Your task to perform on an android device: Go to accessibility settings Image 0: 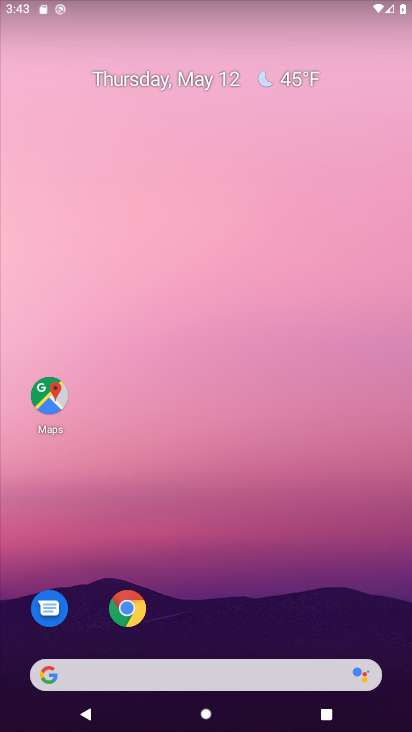
Step 0: drag from (217, 619) to (249, 102)
Your task to perform on an android device: Go to accessibility settings Image 1: 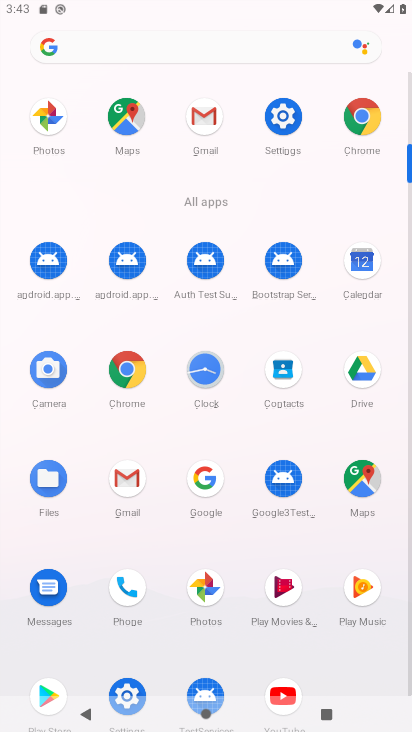
Step 1: click (281, 115)
Your task to perform on an android device: Go to accessibility settings Image 2: 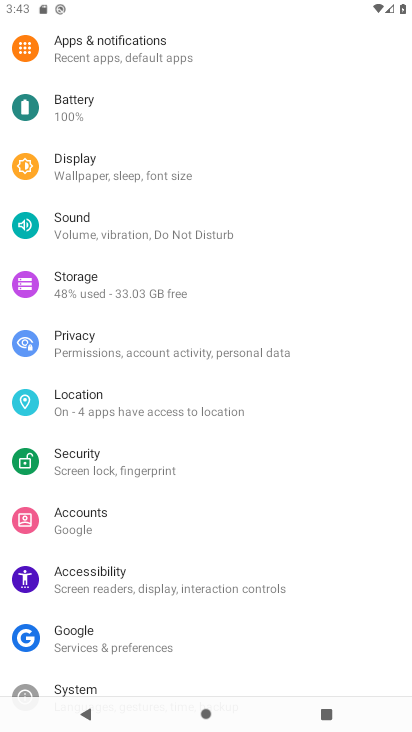
Step 2: click (246, 579)
Your task to perform on an android device: Go to accessibility settings Image 3: 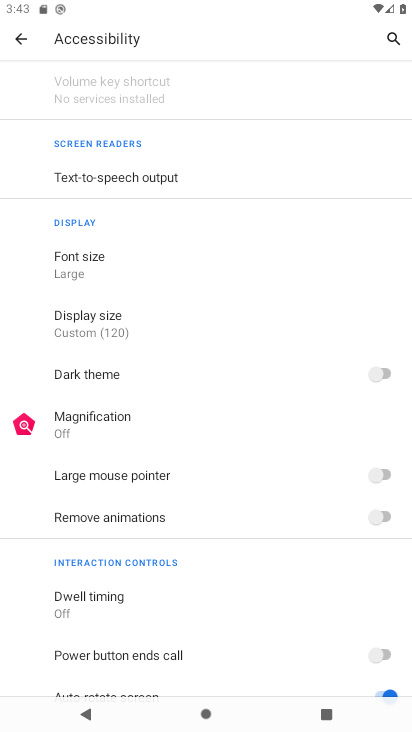
Step 3: click (130, 268)
Your task to perform on an android device: Go to accessibility settings Image 4: 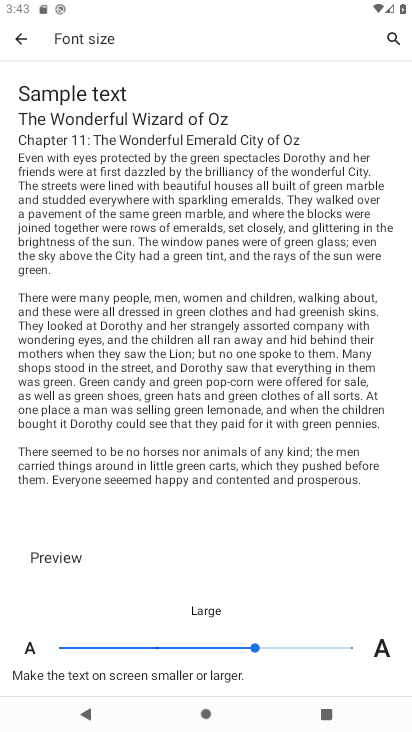
Step 4: click (18, 28)
Your task to perform on an android device: Go to accessibility settings Image 5: 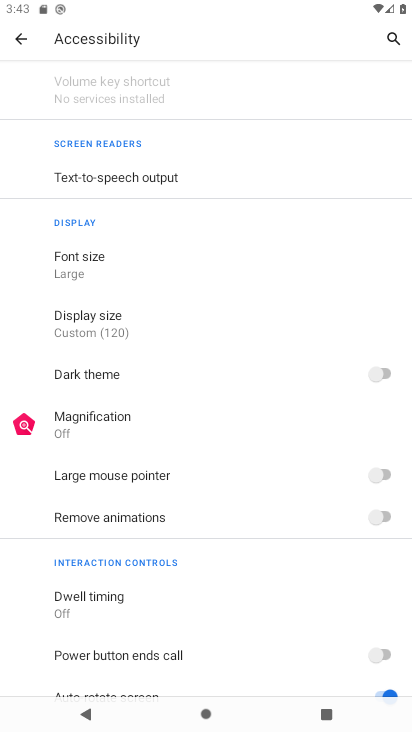
Step 5: click (95, 326)
Your task to perform on an android device: Go to accessibility settings Image 6: 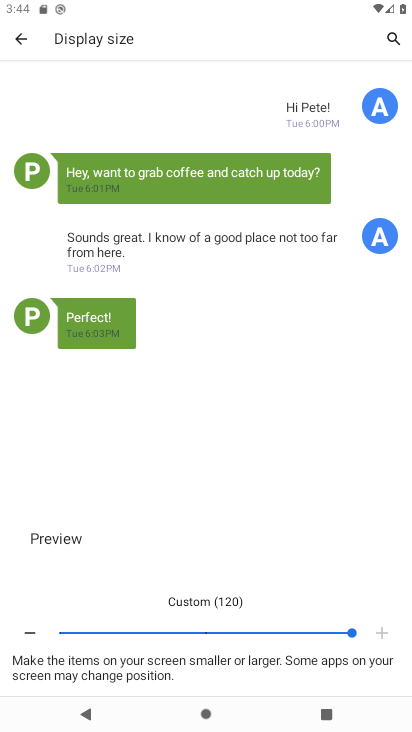
Step 6: click (378, 632)
Your task to perform on an android device: Go to accessibility settings Image 7: 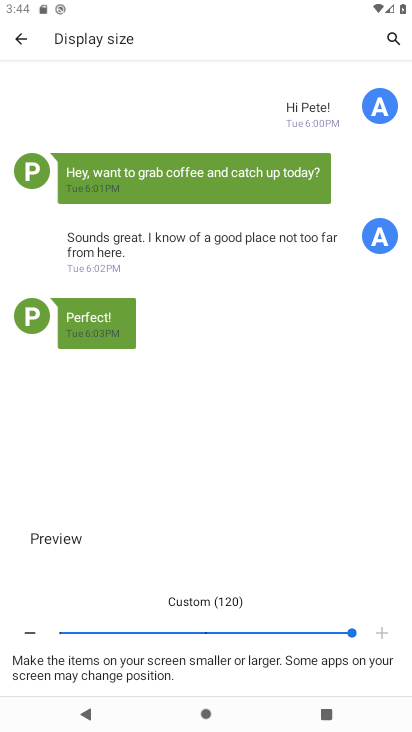
Step 7: click (378, 632)
Your task to perform on an android device: Go to accessibility settings Image 8: 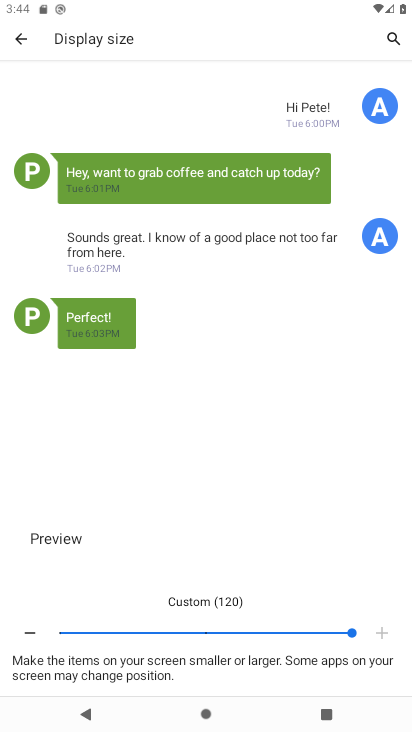
Step 8: click (19, 29)
Your task to perform on an android device: Go to accessibility settings Image 9: 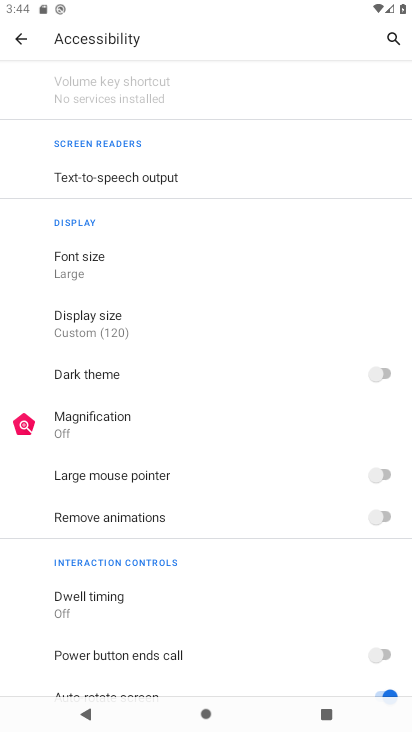
Step 9: task complete